Your task to perform on an android device: Do I have any events tomorrow? Image 0: 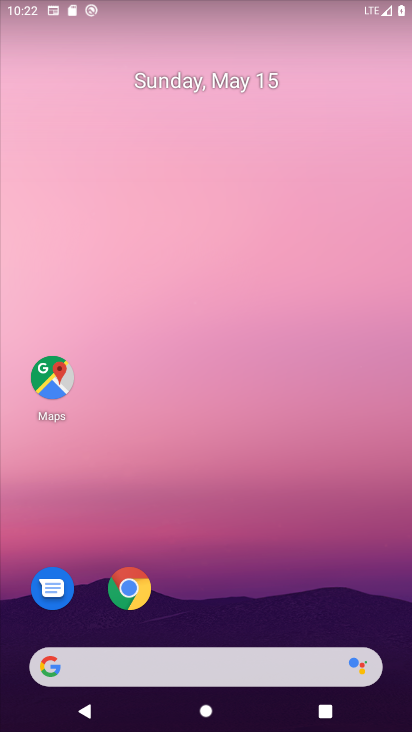
Step 0: click (256, 586)
Your task to perform on an android device: Do I have any events tomorrow? Image 1: 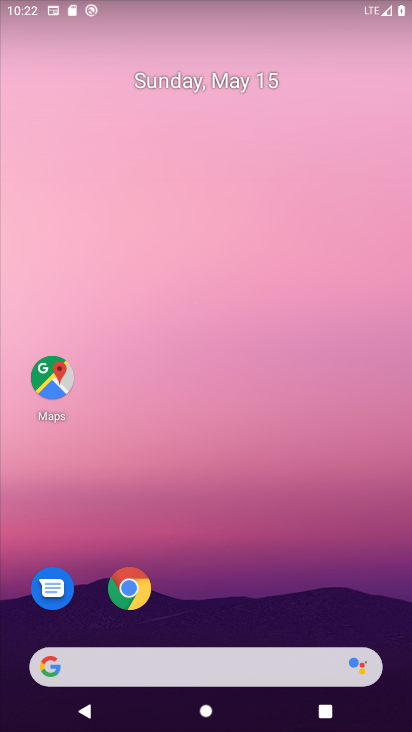
Step 1: click (235, 80)
Your task to perform on an android device: Do I have any events tomorrow? Image 2: 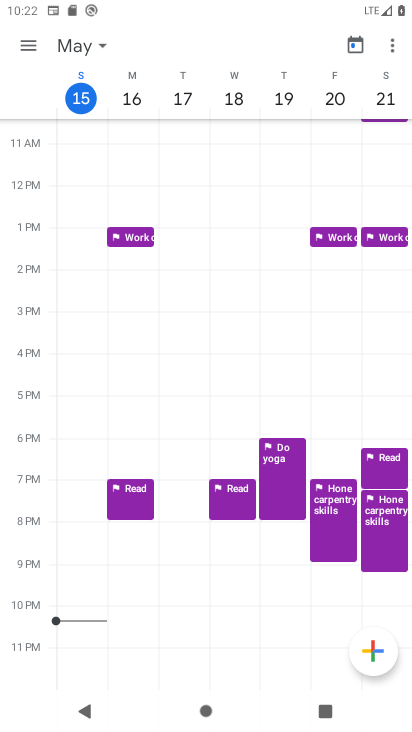
Step 2: click (32, 49)
Your task to perform on an android device: Do I have any events tomorrow? Image 3: 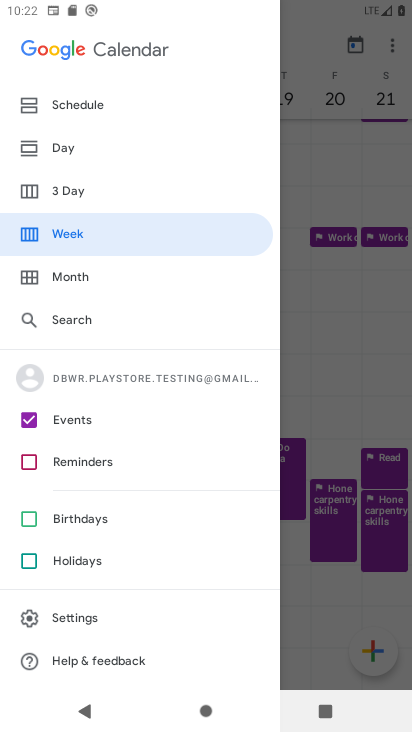
Step 3: click (86, 103)
Your task to perform on an android device: Do I have any events tomorrow? Image 4: 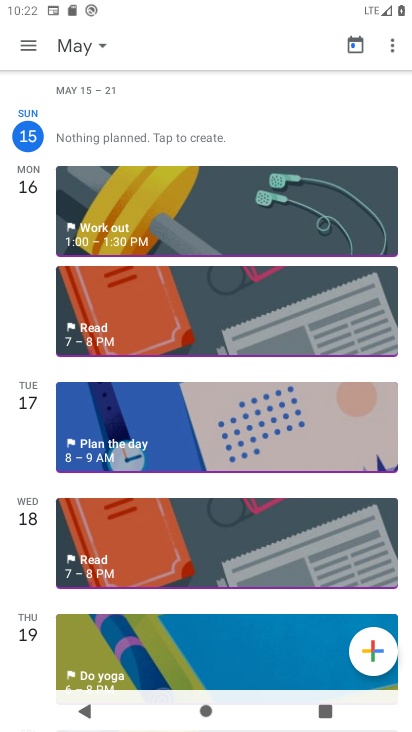
Step 4: task complete